Your task to perform on an android device: Open the calendar app, open the side menu, and click the "Day" option Image 0: 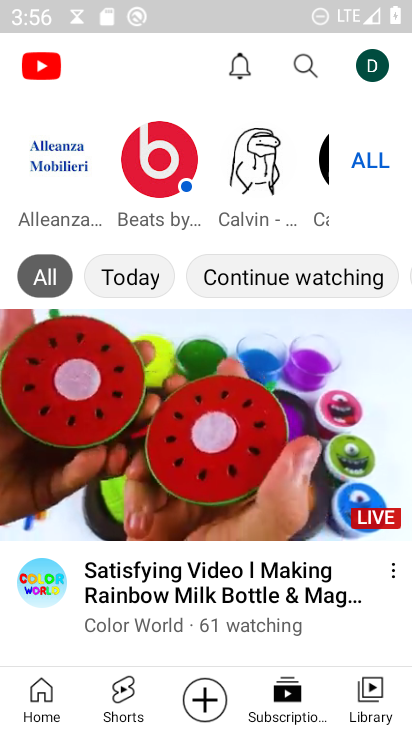
Step 0: press home button
Your task to perform on an android device: Open the calendar app, open the side menu, and click the "Day" option Image 1: 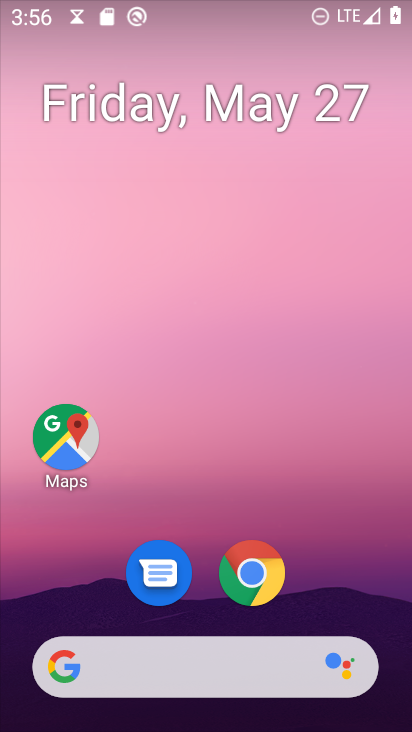
Step 1: drag from (315, 598) to (313, 16)
Your task to perform on an android device: Open the calendar app, open the side menu, and click the "Day" option Image 2: 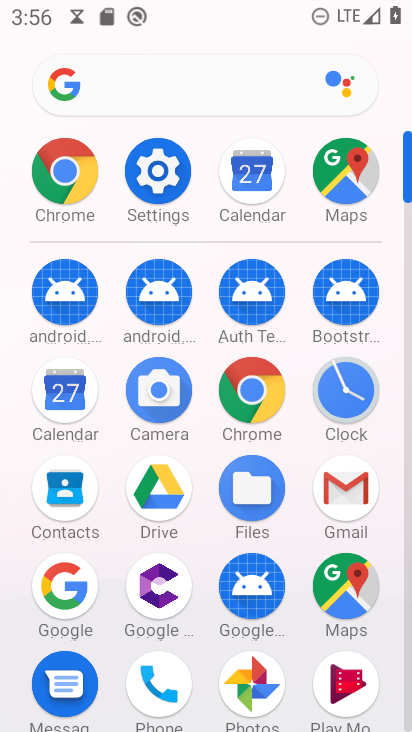
Step 2: click (248, 178)
Your task to perform on an android device: Open the calendar app, open the side menu, and click the "Day" option Image 3: 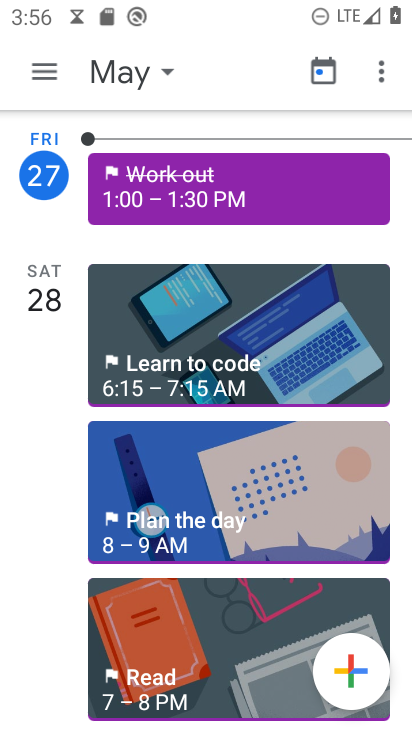
Step 3: click (117, 78)
Your task to perform on an android device: Open the calendar app, open the side menu, and click the "Day" option Image 4: 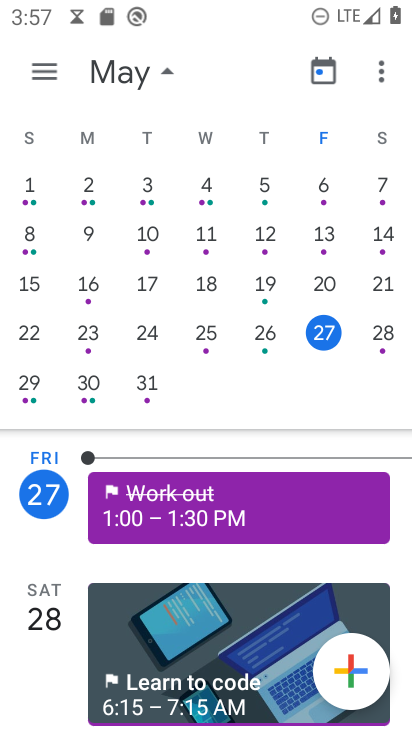
Step 4: click (48, 63)
Your task to perform on an android device: Open the calendar app, open the side menu, and click the "Day" option Image 5: 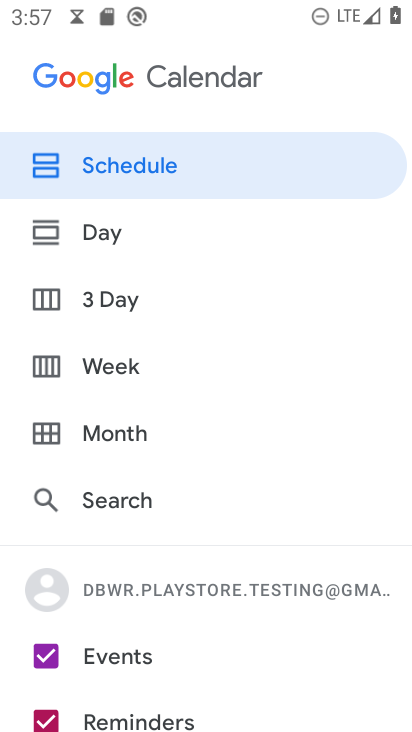
Step 5: click (105, 233)
Your task to perform on an android device: Open the calendar app, open the side menu, and click the "Day" option Image 6: 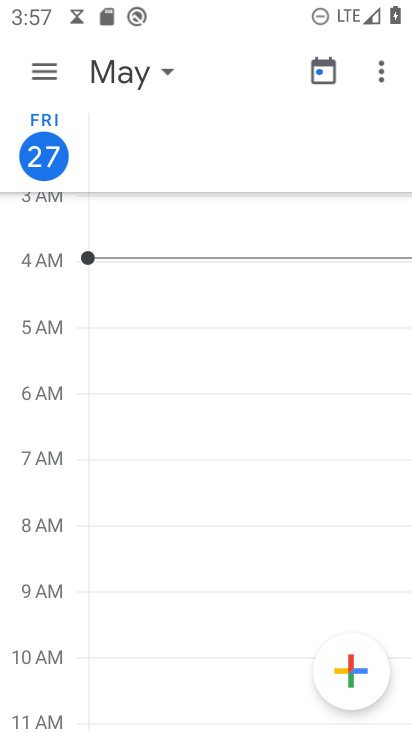
Step 6: task complete